Your task to perform on an android device: change the clock display to analog Image 0: 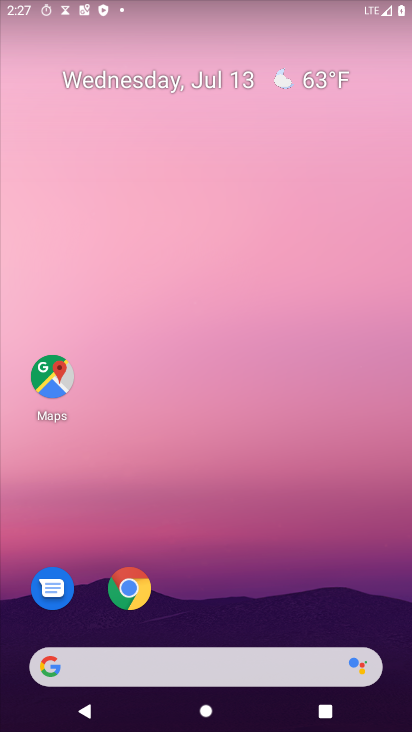
Step 0: drag from (210, 655) to (222, 22)
Your task to perform on an android device: change the clock display to analog Image 1: 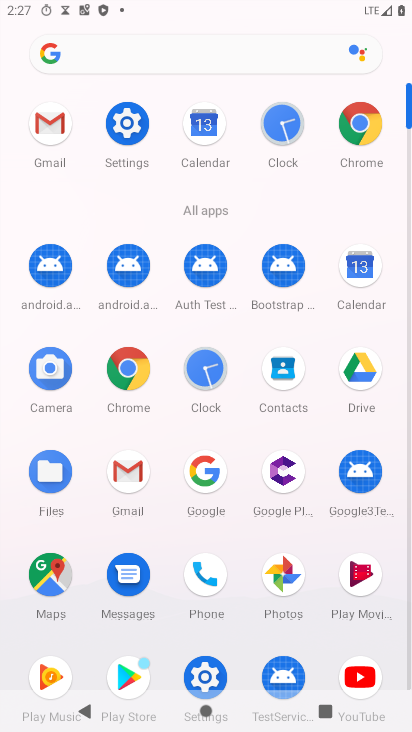
Step 1: click (208, 375)
Your task to perform on an android device: change the clock display to analog Image 2: 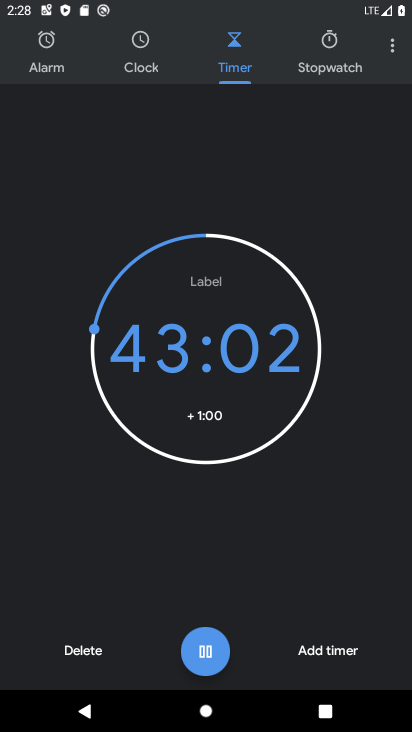
Step 2: click (384, 51)
Your task to perform on an android device: change the clock display to analog Image 3: 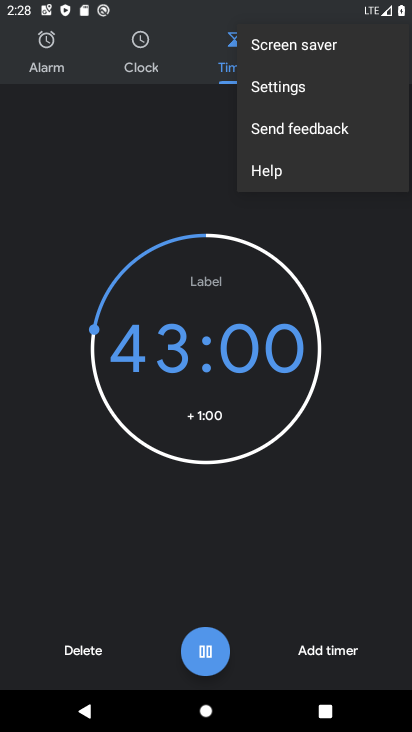
Step 3: click (273, 84)
Your task to perform on an android device: change the clock display to analog Image 4: 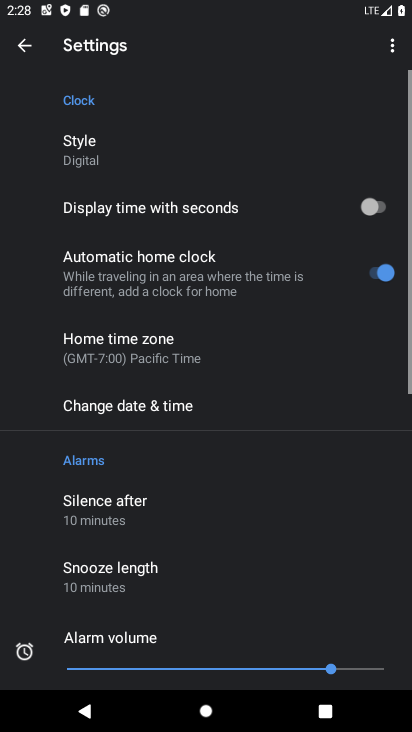
Step 4: click (105, 160)
Your task to perform on an android device: change the clock display to analog Image 5: 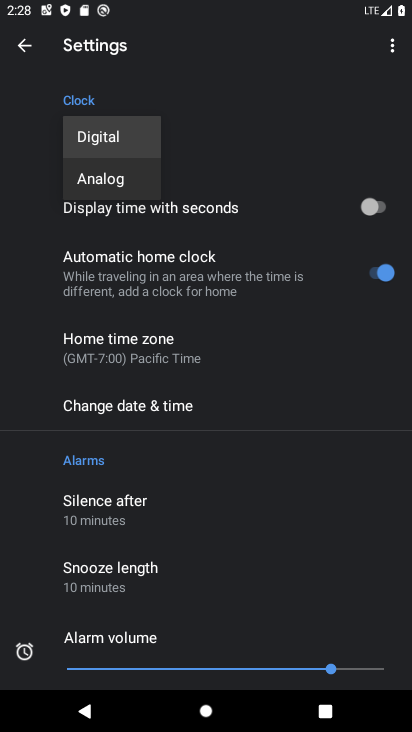
Step 5: click (122, 179)
Your task to perform on an android device: change the clock display to analog Image 6: 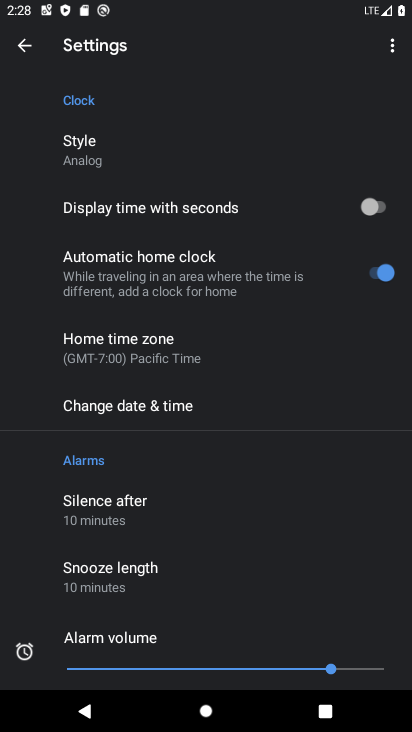
Step 6: task complete